Your task to perform on an android device: turn off smart reply in the gmail app Image 0: 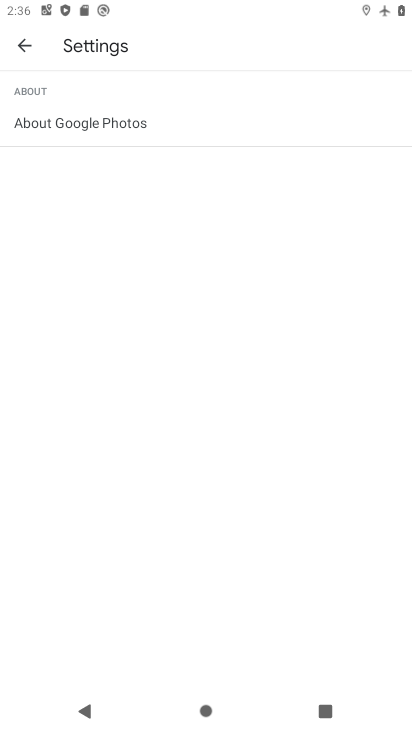
Step 0: press home button
Your task to perform on an android device: turn off smart reply in the gmail app Image 1: 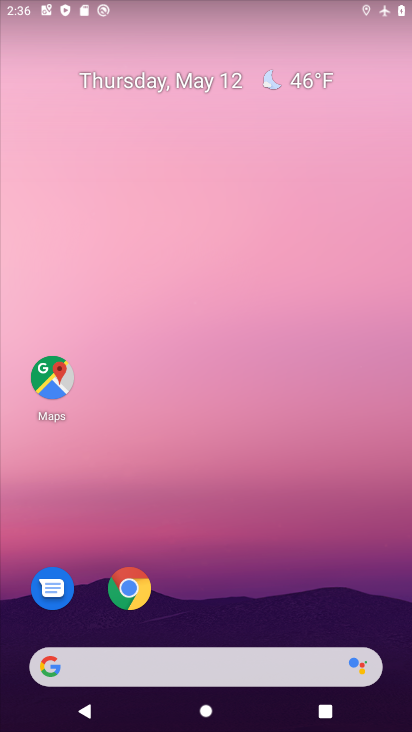
Step 1: drag from (370, 631) to (309, 88)
Your task to perform on an android device: turn off smart reply in the gmail app Image 2: 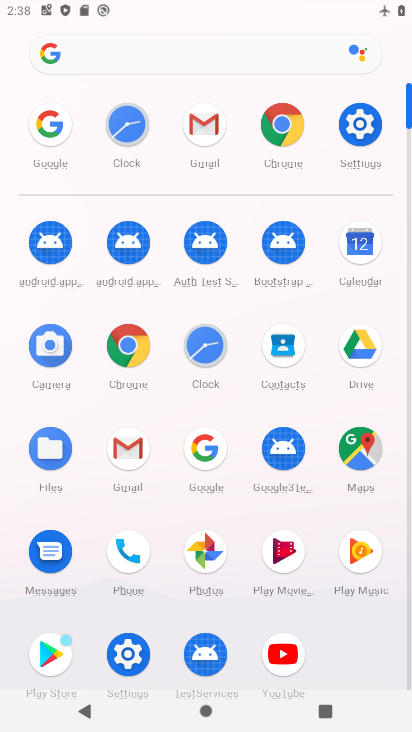
Step 2: click (132, 461)
Your task to perform on an android device: turn off smart reply in the gmail app Image 3: 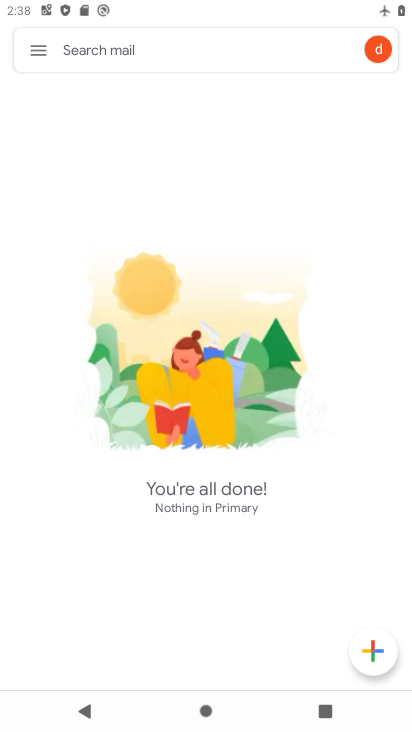
Step 3: click (39, 51)
Your task to perform on an android device: turn off smart reply in the gmail app Image 4: 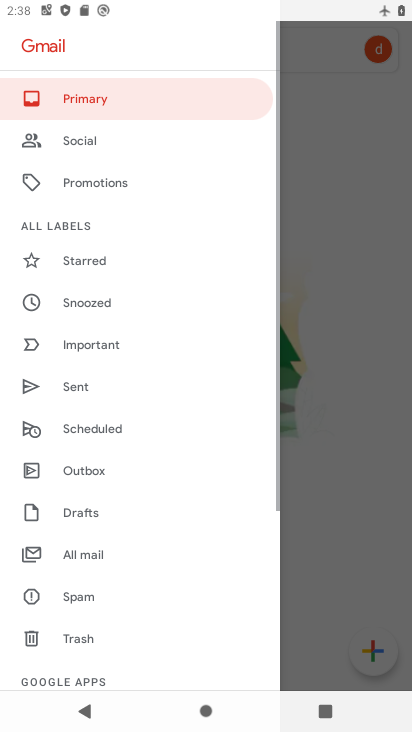
Step 4: drag from (37, 660) to (122, 208)
Your task to perform on an android device: turn off smart reply in the gmail app Image 5: 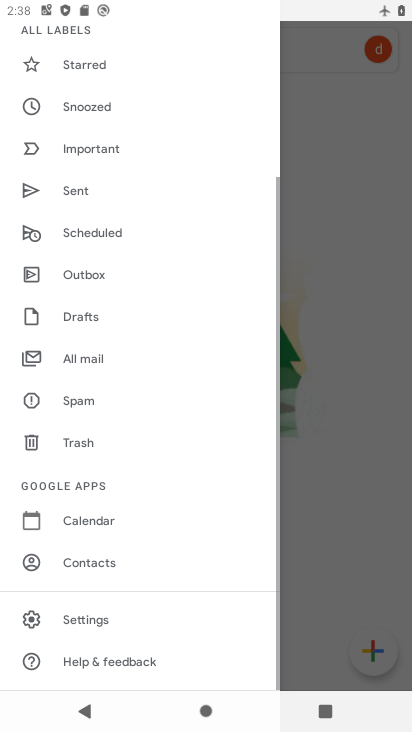
Step 5: click (76, 620)
Your task to perform on an android device: turn off smart reply in the gmail app Image 6: 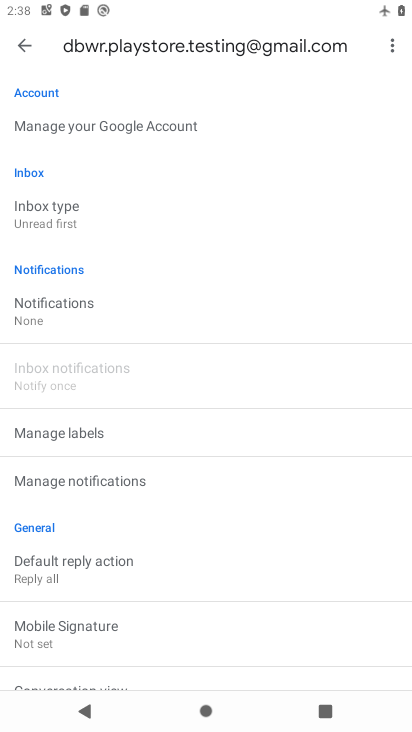
Step 6: drag from (133, 641) to (242, 184)
Your task to perform on an android device: turn off smart reply in the gmail app Image 7: 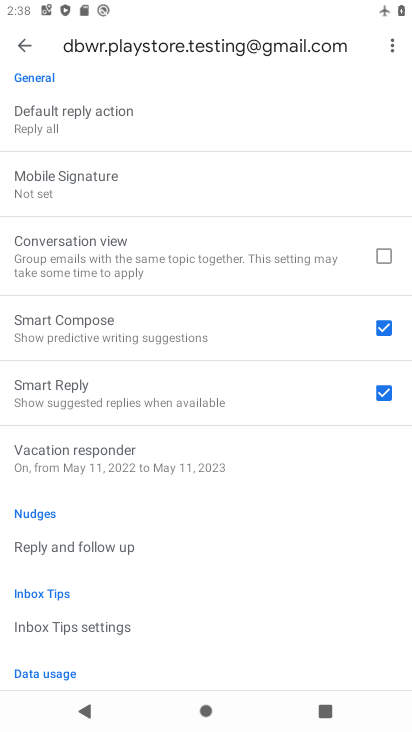
Step 7: click (249, 392)
Your task to perform on an android device: turn off smart reply in the gmail app Image 8: 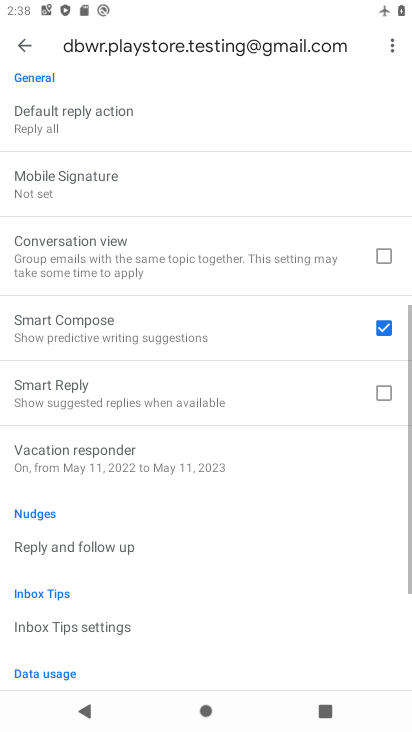
Step 8: task complete